Your task to perform on an android device: Open the stopwatch Image 0: 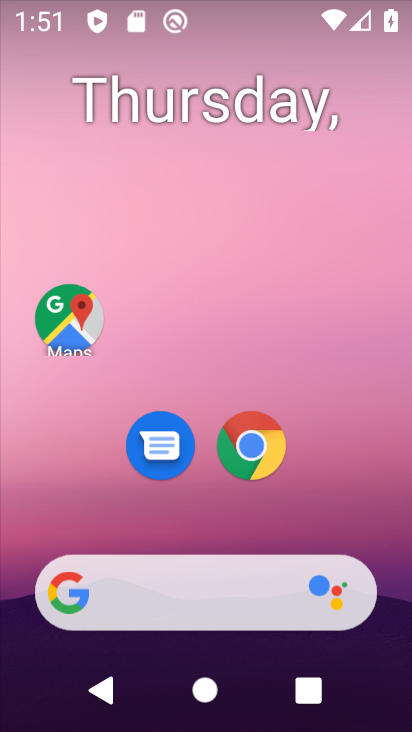
Step 0: drag from (207, 586) to (190, 82)
Your task to perform on an android device: Open the stopwatch Image 1: 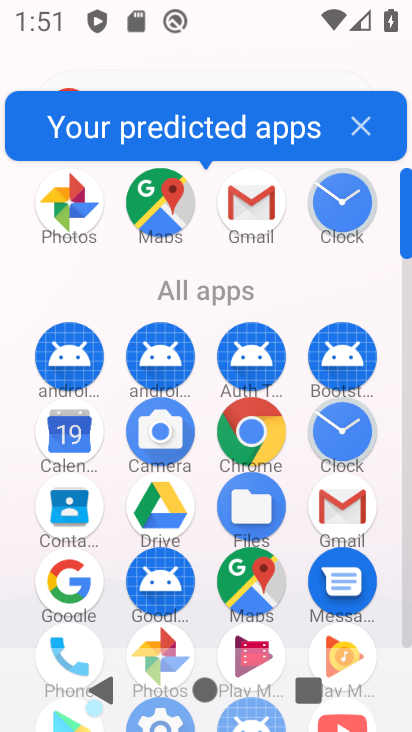
Step 1: click (341, 219)
Your task to perform on an android device: Open the stopwatch Image 2: 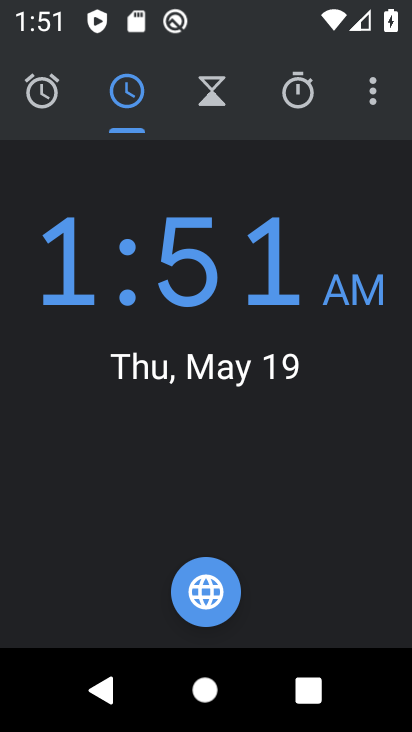
Step 2: click (291, 109)
Your task to perform on an android device: Open the stopwatch Image 3: 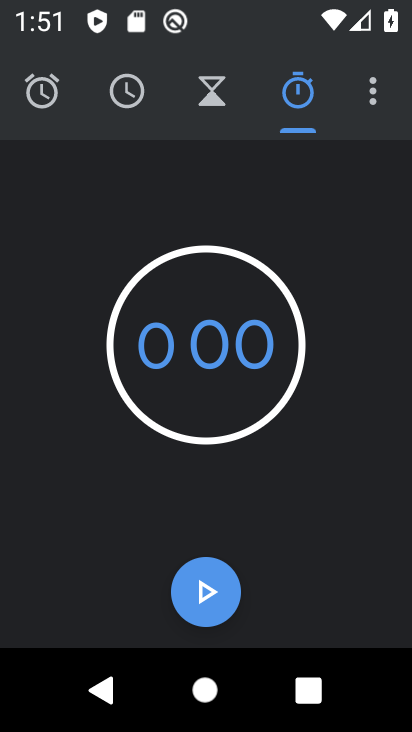
Step 3: click (223, 572)
Your task to perform on an android device: Open the stopwatch Image 4: 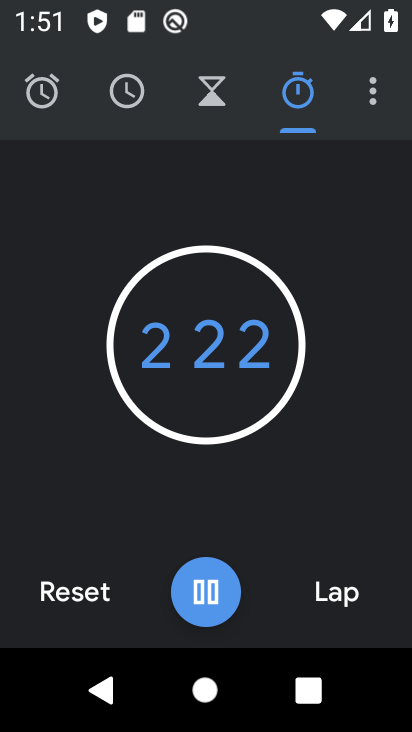
Step 4: task complete